Your task to perform on an android device: What's the weather today? Image 0: 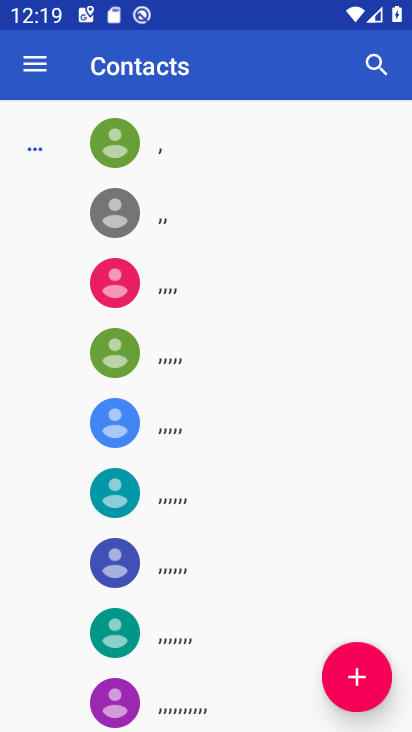
Step 0: press home button
Your task to perform on an android device: What's the weather today? Image 1: 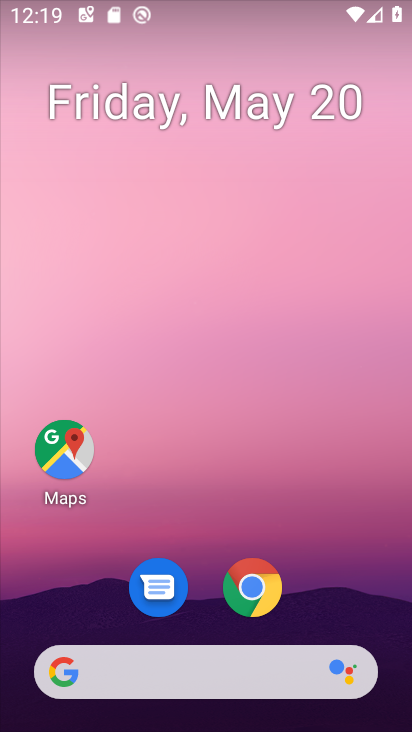
Step 1: click (263, 667)
Your task to perform on an android device: What's the weather today? Image 2: 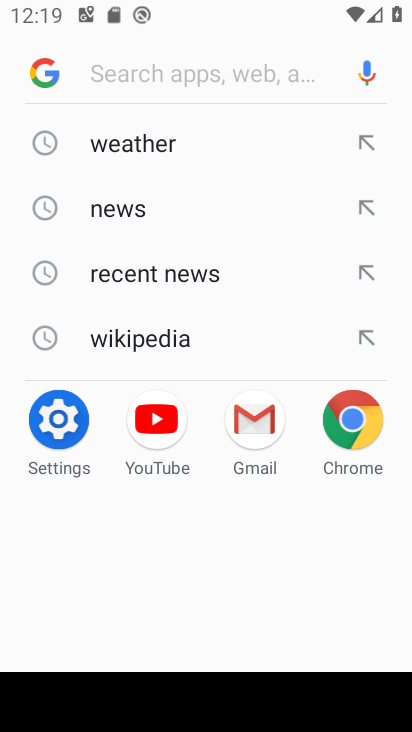
Step 2: click (145, 153)
Your task to perform on an android device: What's the weather today? Image 3: 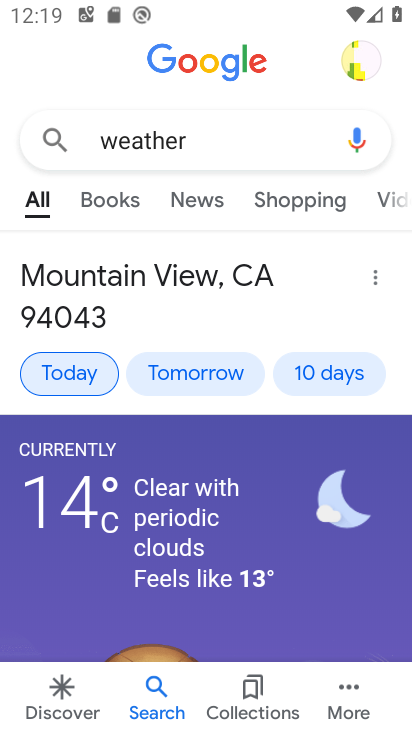
Step 3: click (90, 370)
Your task to perform on an android device: What's the weather today? Image 4: 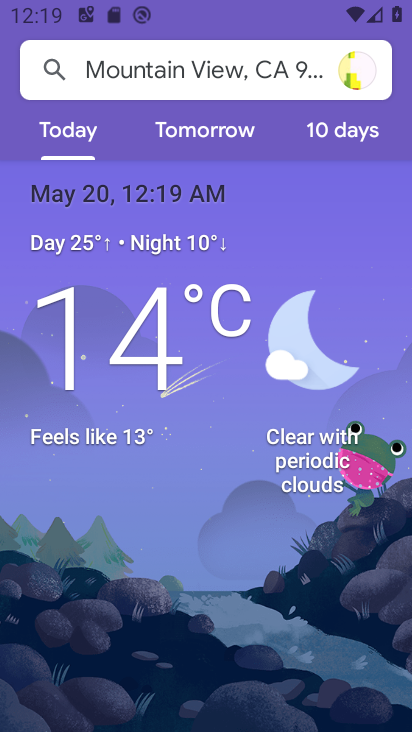
Step 4: task complete